Your task to perform on an android device: add a contact in the contacts app Image 0: 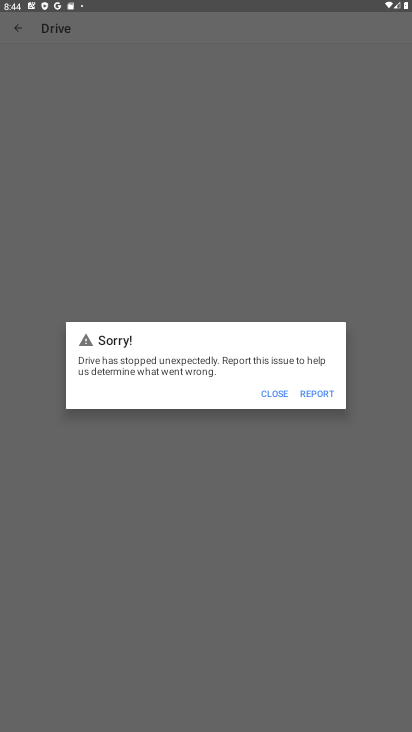
Step 0: press home button
Your task to perform on an android device: add a contact in the contacts app Image 1: 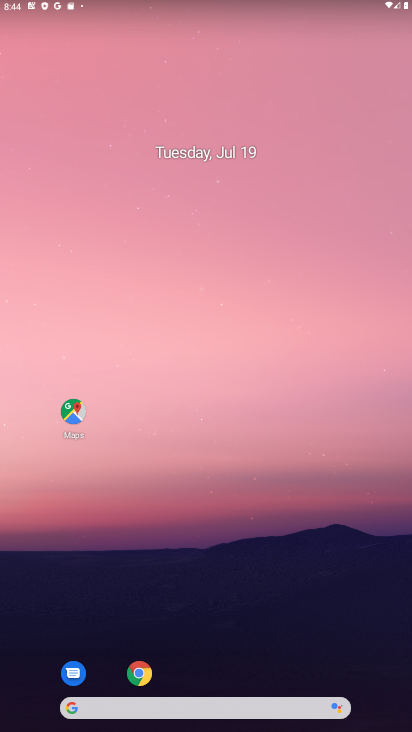
Step 1: drag from (270, 662) to (251, 141)
Your task to perform on an android device: add a contact in the contacts app Image 2: 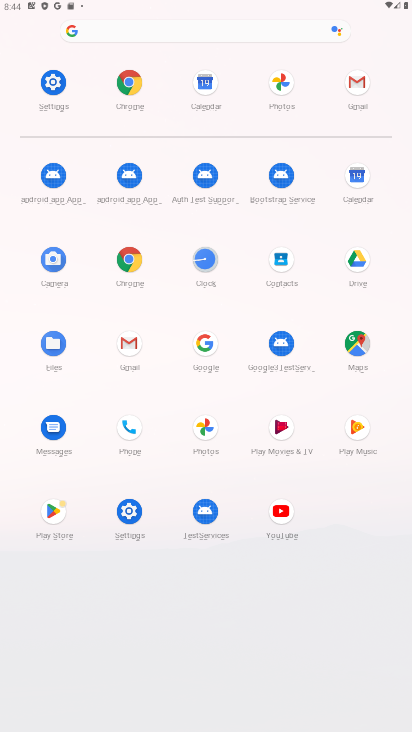
Step 2: click (277, 281)
Your task to perform on an android device: add a contact in the contacts app Image 3: 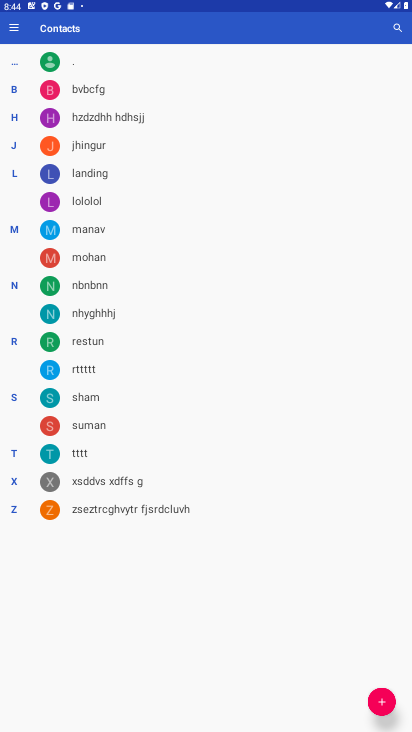
Step 3: click (384, 706)
Your task to perform on an android device: add a contact in the contacts app Image 4: 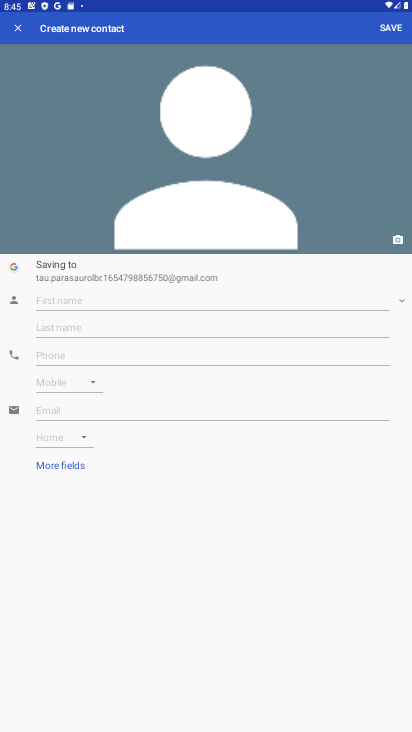
Step 4: click (260, 295)
Your task to perform on an android device: add a contact in the contacts app Image 5: 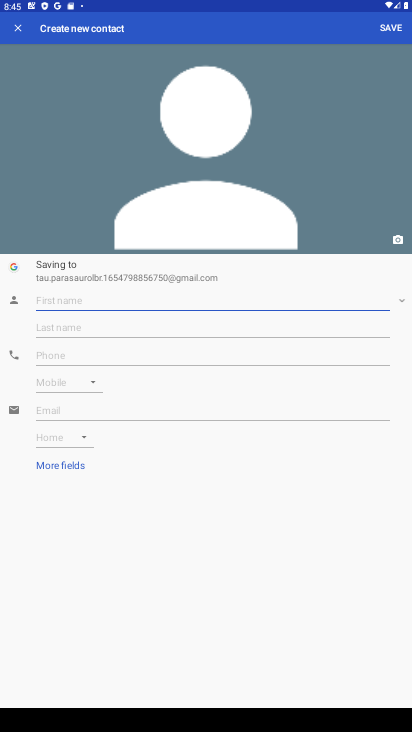
Step 5: type "ifuyf"
Your task to perform on an android device: add a contact in the contacts app Image 6: 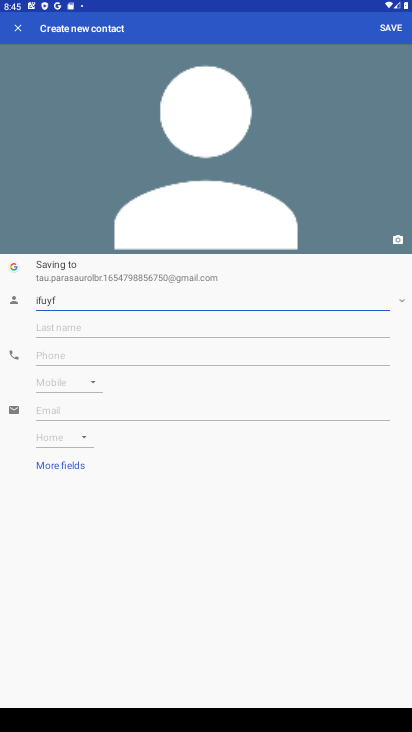
Step 6: click (287, 332)
Your task to perform on an android device: add a contact in the contacts app Image 7: 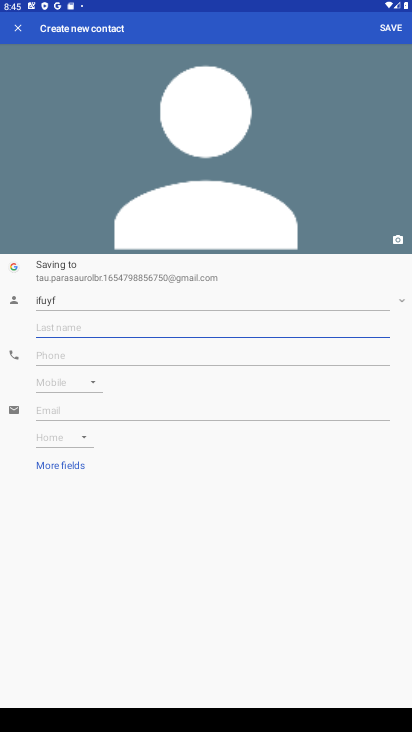
Step 7: type "kcvkjk"
Your task to perform on an android device: add a contact in the contacts app Image 8: 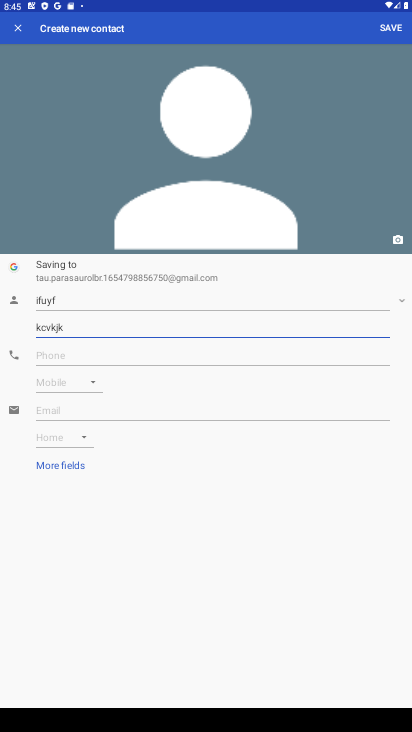
Step 8: click (273, 351)
Your task to perform on an android device: add a contact in the contacts app Image 9: 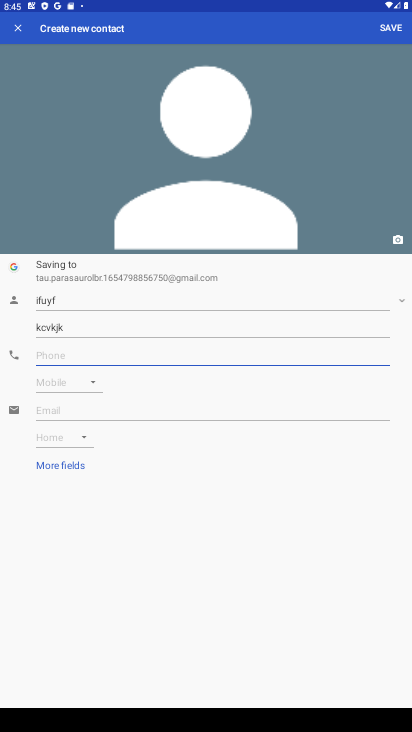
Step 9: type "87769587567655"
Your task to perform on an android device: add a contact in the contacts app Image 10: 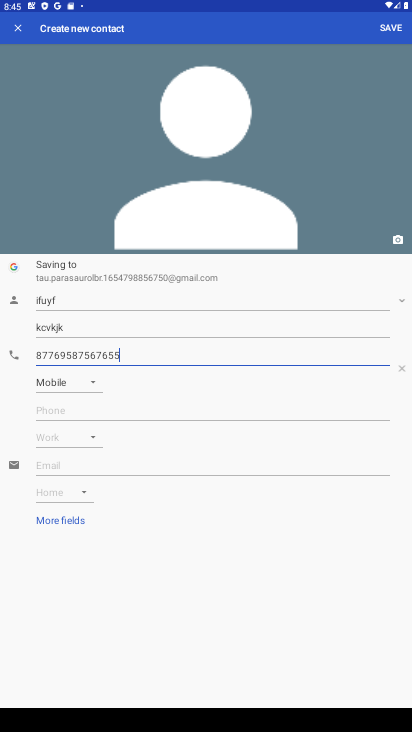
Step 10: click (388, 33)
Your task to perform on an android device: add a contact in the contacts app Image 11: 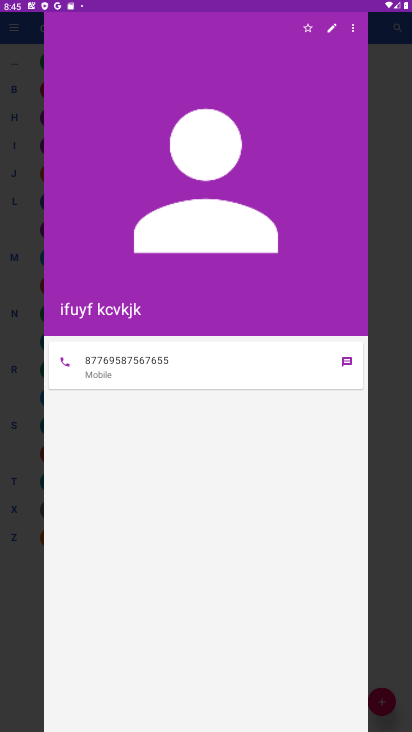
Step 11: task complete